Your task to perform on an android device: turn off translation in the chrome app Image 0: 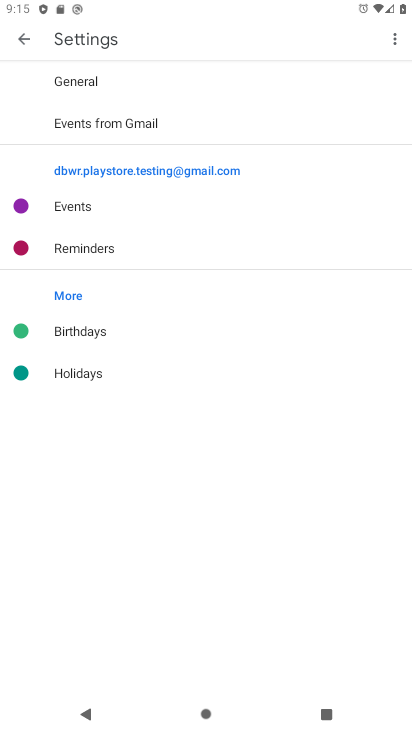
Step 0: press back button
Your task to perform on an android device: turn off translation in the chrome app Image 1: 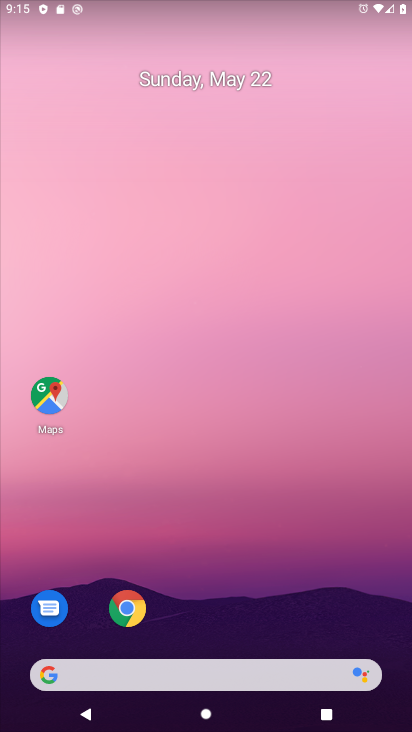
Step 1: drag from (233, 504) to (20, 81)
Your task to perform on an android device: turn off translation in the chrome app Image 2: 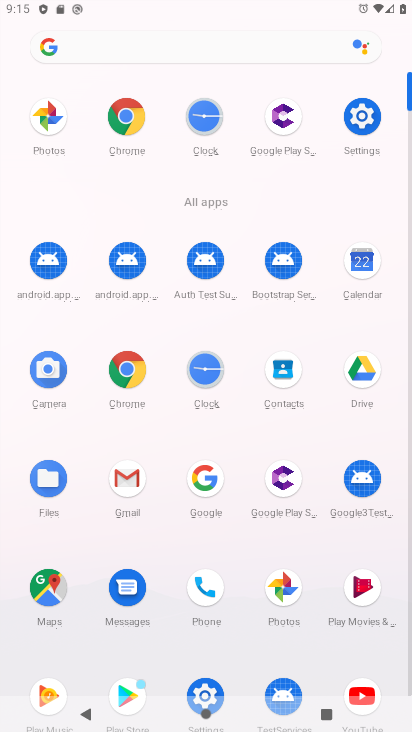
Step 2: click (126, 369)
Your task to perform on an android device: turn off translation in the chrome app Image 3: 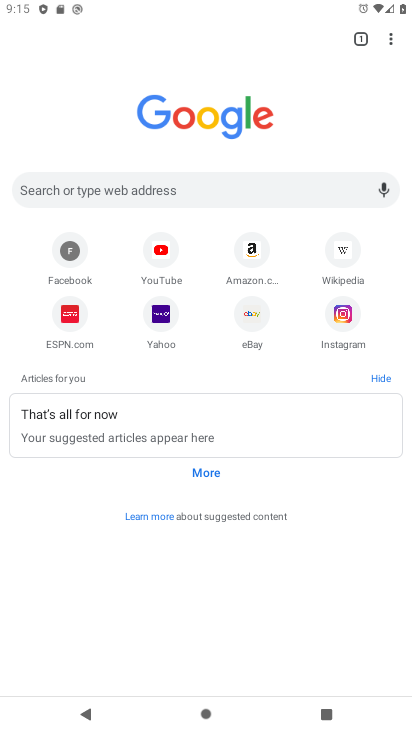
Step 3: drag from (390, 34) to (241, 327)
Your task to perform on an android device: turn off translation in the chrome app Image 4: 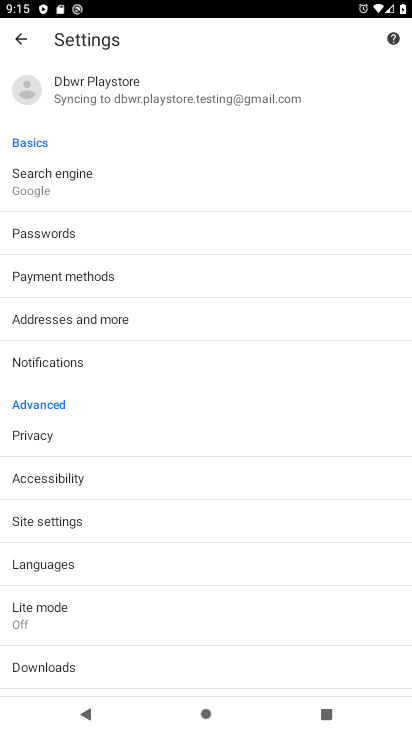
Step 4: click (73, 563)
Your task to perform on an android device: turn off translation in the chrome app Image 5: 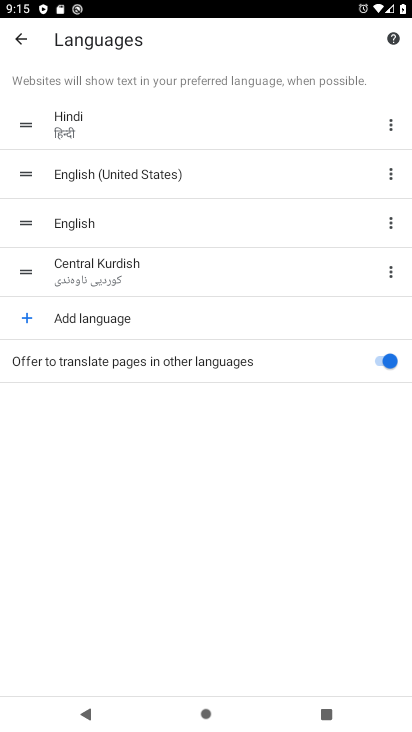
Step 5: click (380, 362)
Your task to perform on an android device: turn off translation in the chrome app Image 6: 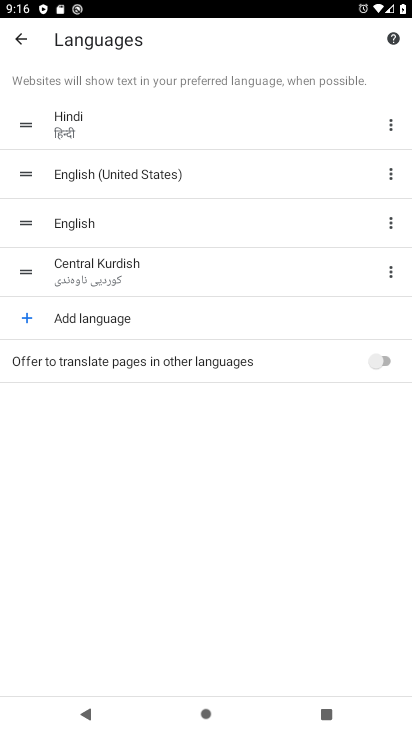
Step 6: task complete